Your task to perform on an android device: Find coffee shops on Maps Image 0: 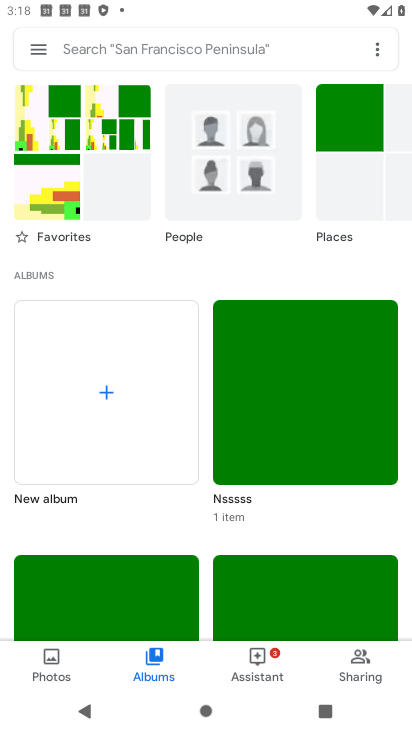
Step 0: task complete